Your task to perform on an android device: Open the stopwatch Image 0: 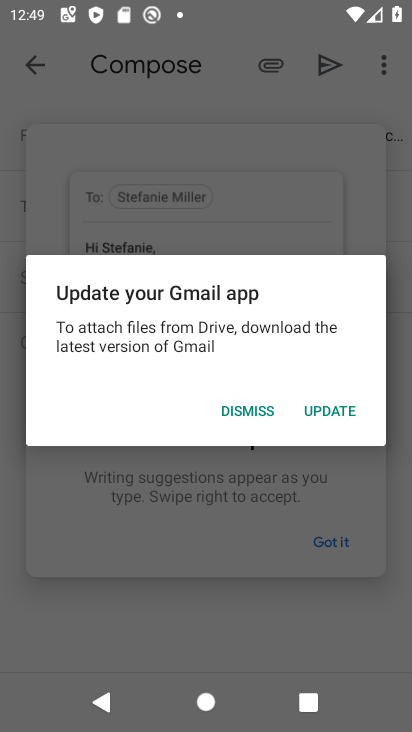
Step 0: press home button
Your task to perform on an android device: Open the stopwatch Image 1: 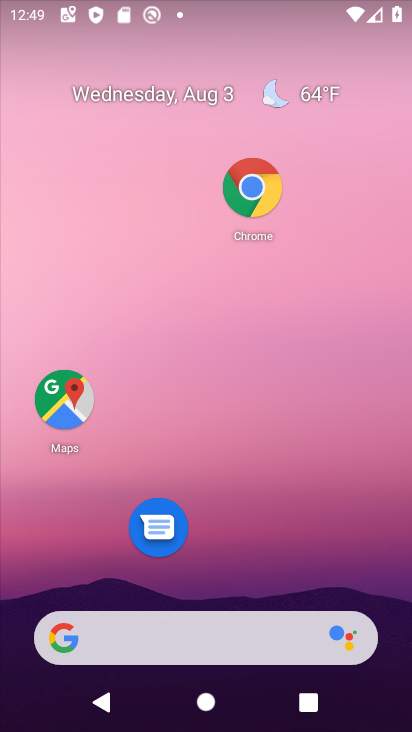
Step 1: drag from (230, 631) to (236, 162)
Your task to perform on an android device: Open the stopwatch Image 2: 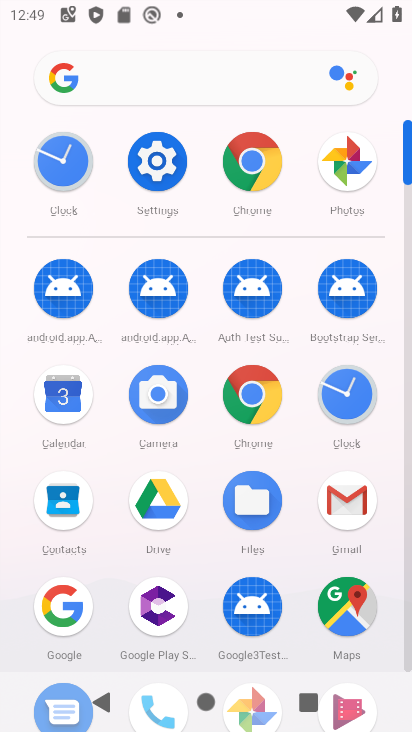
Step 2: click (352, 403)
Your task to perform on an android device: Open the stopwatch Image 3: 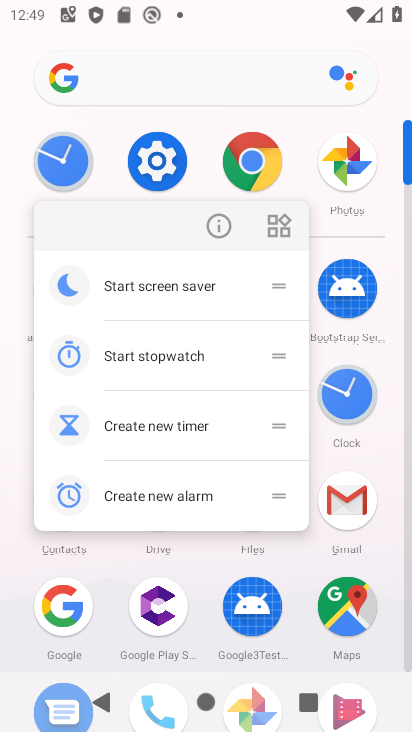
Step 3: click (347, 386)
Your task to perform on an android device: Open the stopwatch Image 4: 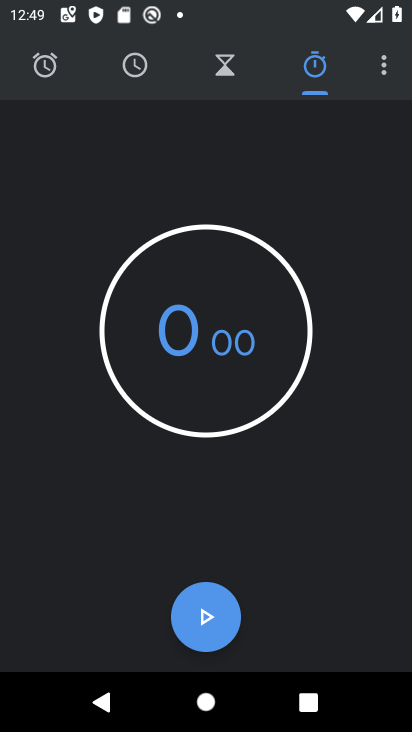
Step 4: click (205, 609)
Your task to perform on an android device: Open the stopwatch Image 5: 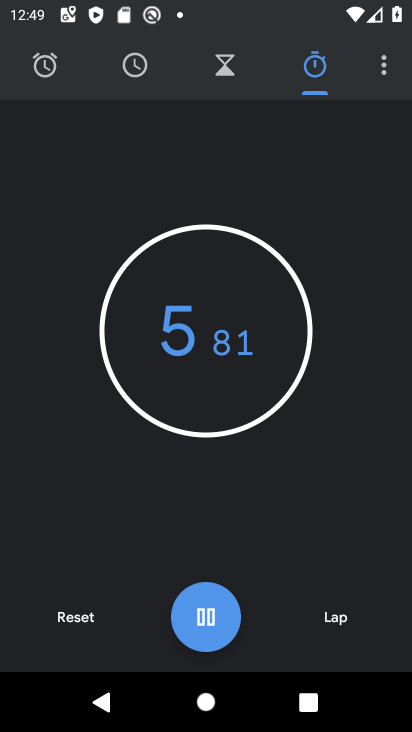
Step 5: task complete